Your task to perform on an android device: Turn off the flashlight Image 0: 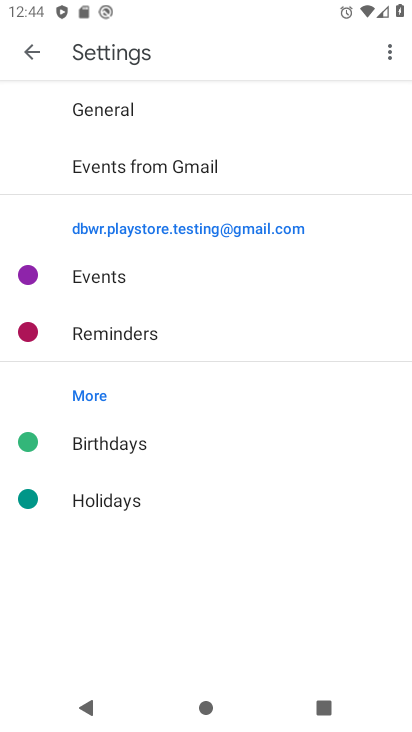
Step 0: press home button
Your task to perform on an android device: Turn off the flashlight Image 1: 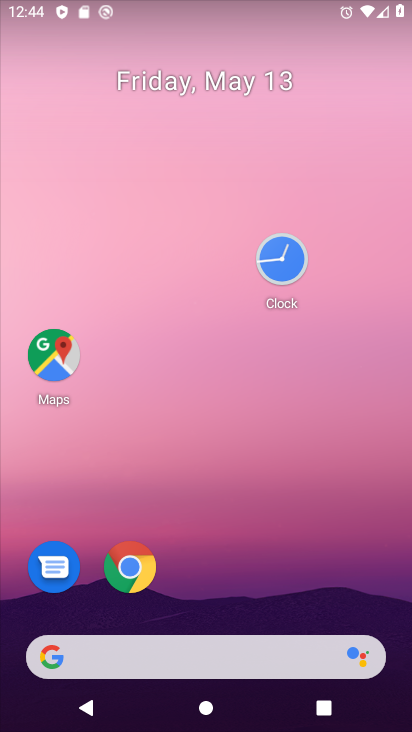
Step 1: drag from (216, 553) to (232, 221)
Your task to perform on an android device: Turn off the flashlight Image 2: 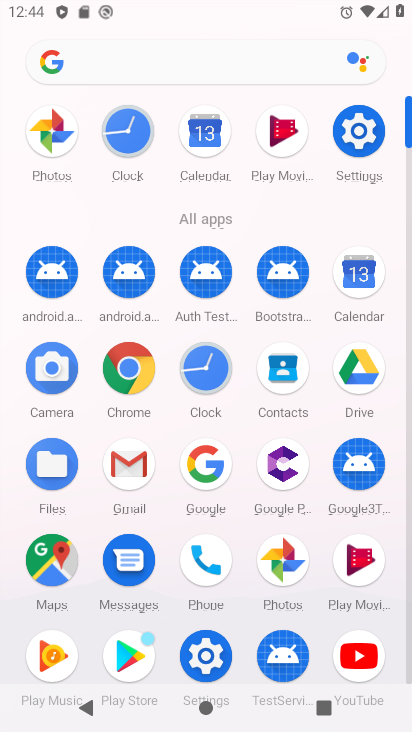
Step 2: click (359, 151)
Your task to perform on an android device: Turn off the flashlight Image 3: 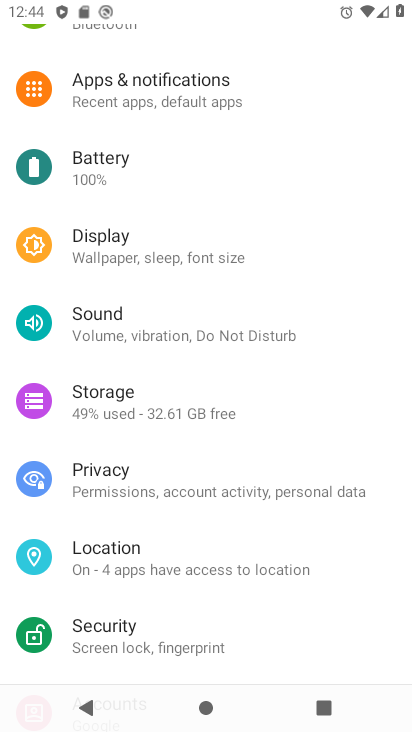
Step 3: drag from (275, 113) to (266, 318)
Your task to perform on an android device: Turn off the flashlight Image 4: 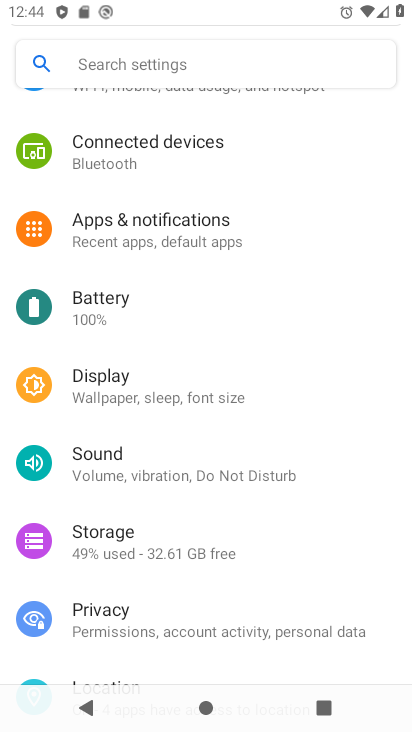
Step 4: click (266, 320)
Your task to perform on an android device: Turn off the flashlight Image 5: 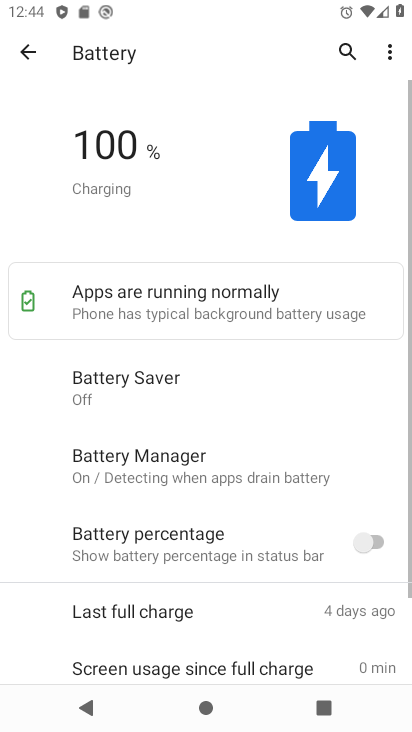
Step 5: task complete